Your task to perform on an android device: change the clock style Image 0: 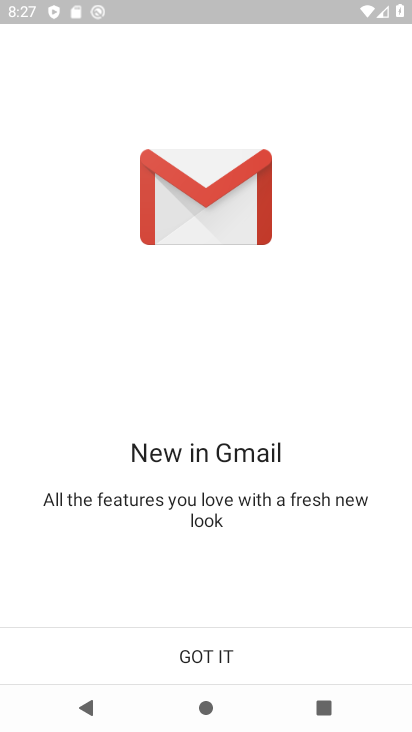
Step 0: press home button
Your task to perform on an android device: change the clock style Image 1: 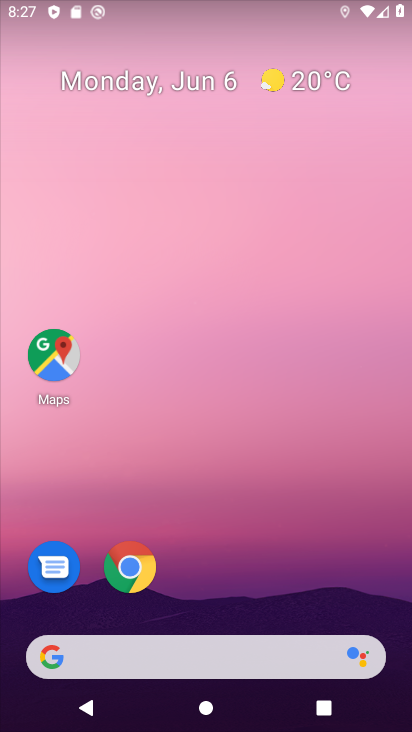
Step 1: drag from (192, 623) to (237, 189)
Your task to perform on an android device: change the clock style Image 2: 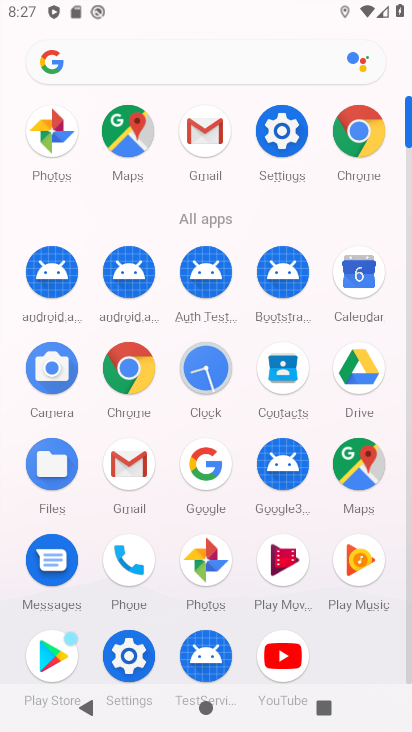
Step 2: click (196, 362)
Your task to perform on an android device: change the clock style Image 3: 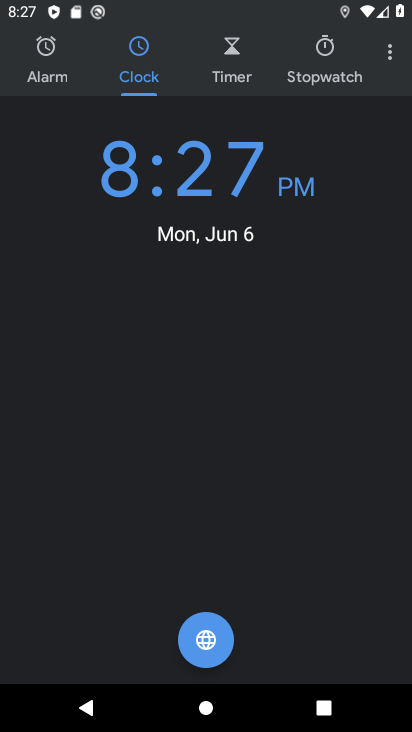
Step 3: click (392, 55)
Your task to perform on an android device: change the clock style Image 4: 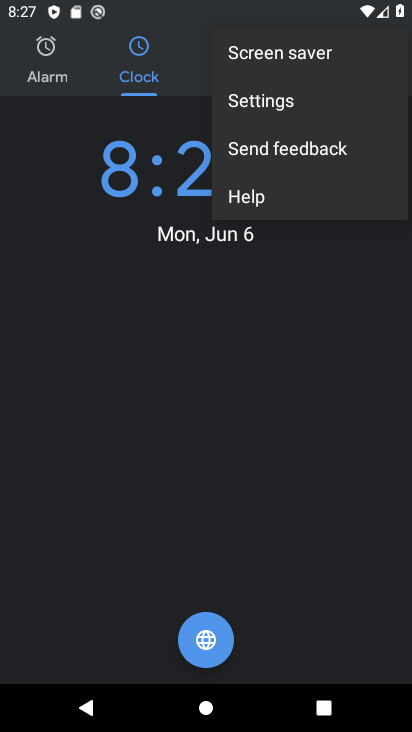
Step 4: click (316, 117)
Your task to perform on an android device: change the clock style Image 5: 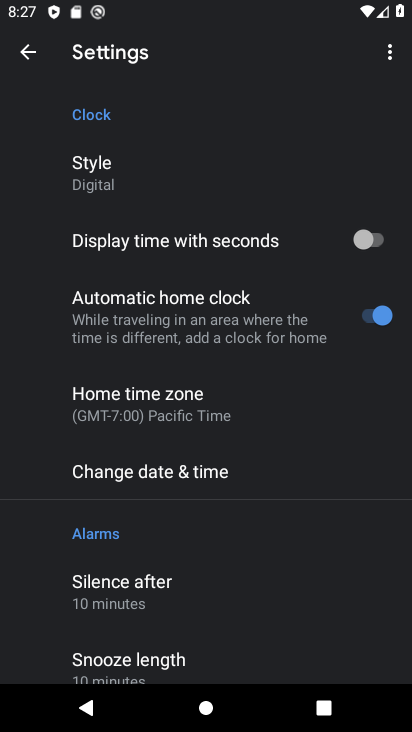
Step 5: click (92, 198)
Your task to perform on an android device: change the clock style Image 6: 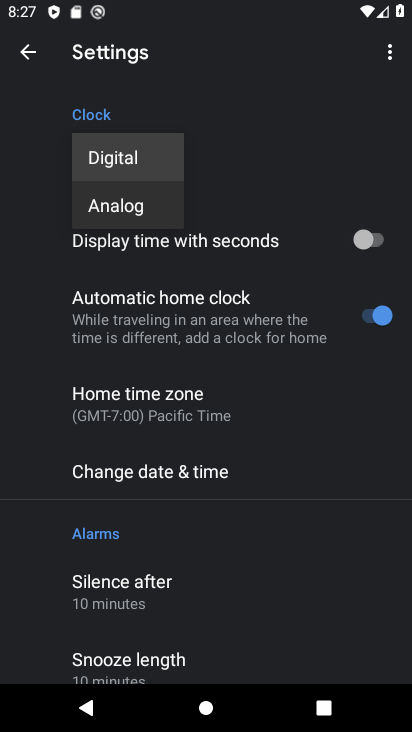
Step 6: click (92, 198)
Your task to perform on an android device: change the clock style Image 7: 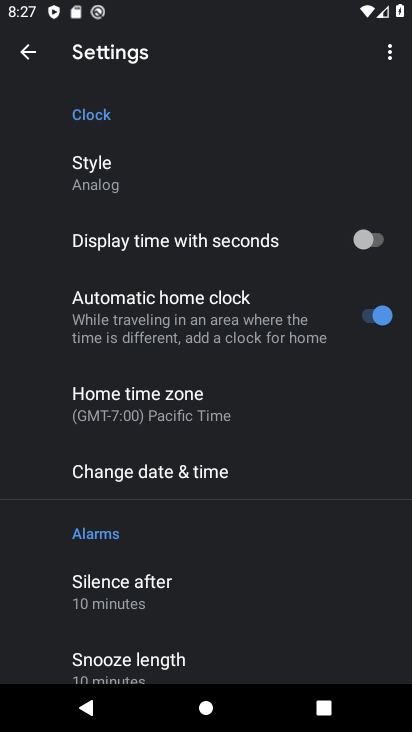
Step 7: task complete